Your task to perform on an android device: Open accessibility settings Image 0: 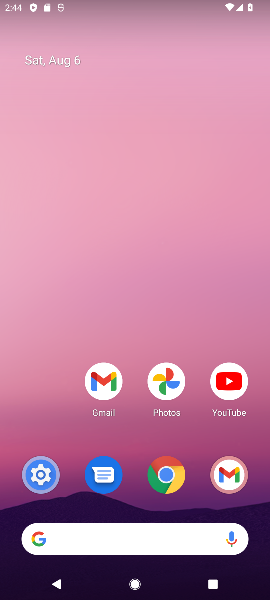
Step 0: click (32, 476)
Your task to perform on an android device: Open accessibility settings Image 1: 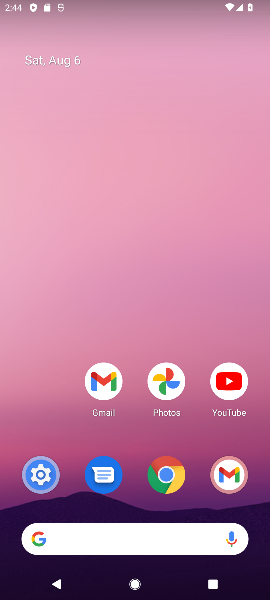
Step 1: click (32, 476)
Your task to perform on an android device: Open accessibility settings Image 2: 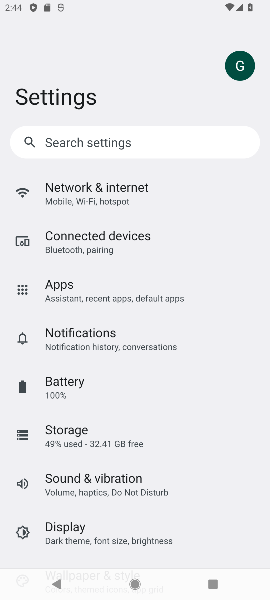
Step 2: drag from (220, 480) to (243, 212)
Your task to perform on an android device: Open accessibility settings Image 3: 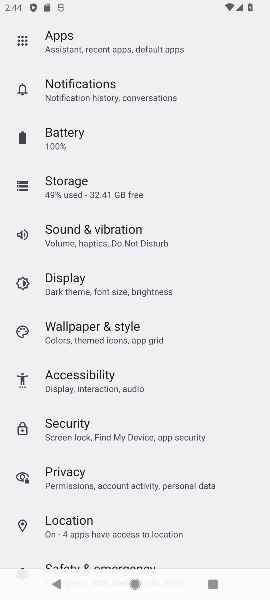
Step 3: click (89, 383)
Your task to perform on an android device: Open accessibility settings Image 4: 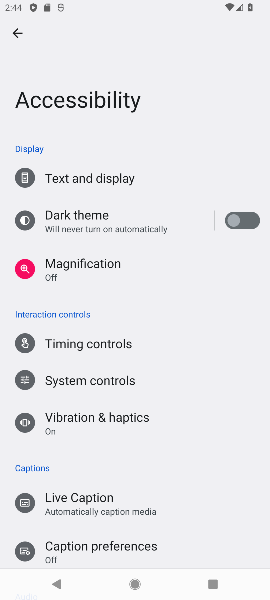
Step 4: task complete